Your task to perform on an android device: Go to accessibility settings Image 0: 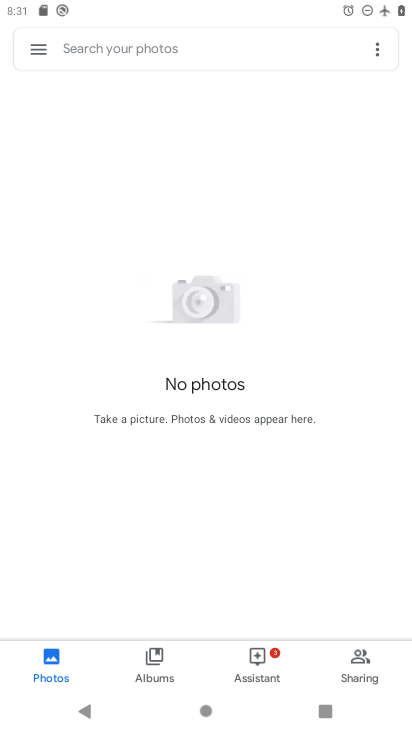
Step 0: press home button
Your task to perform on an android device: Go to accessibility settings Image 1: 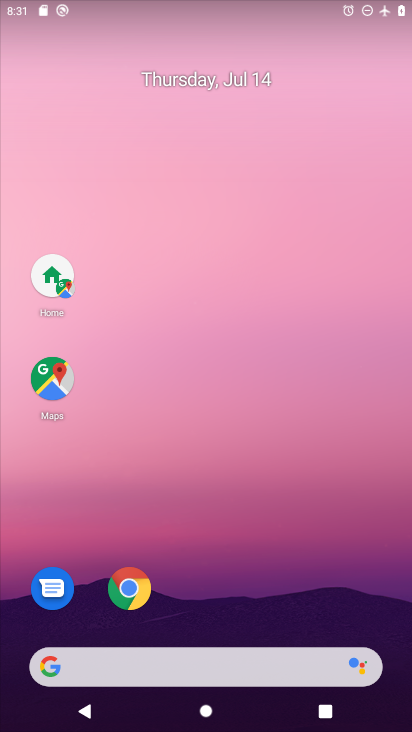
Step 1: drag from (18, 689) to (193, 94)
Your task to perform on an android device: Go to accessibility settings Image 2: 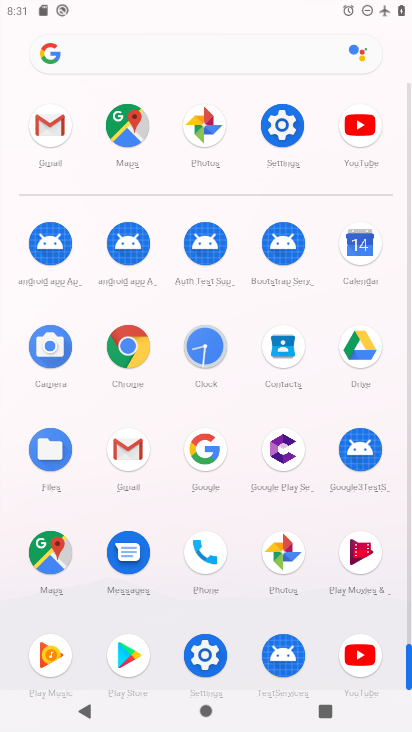
Step 2: click (199, 663)
Your task to perform on an android device: Go to accessibility settings Image 3: 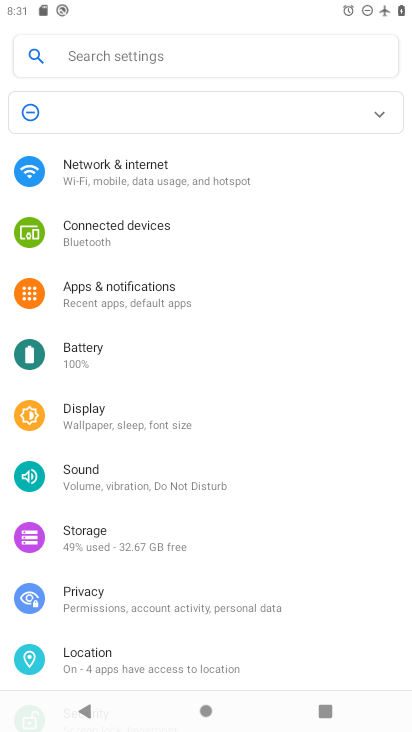
Step 3: drag from (210, 593) to (309, 79)
Your task to perform on an android device: Go to accessibility settings Image 4: 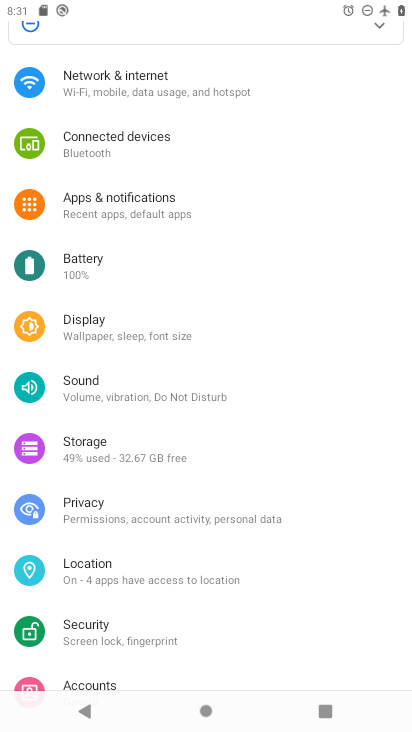
Step 4: drag from (182, 596) to (229, 88)
Your task to perform on an android device: Go to accessibility settings Image 5: 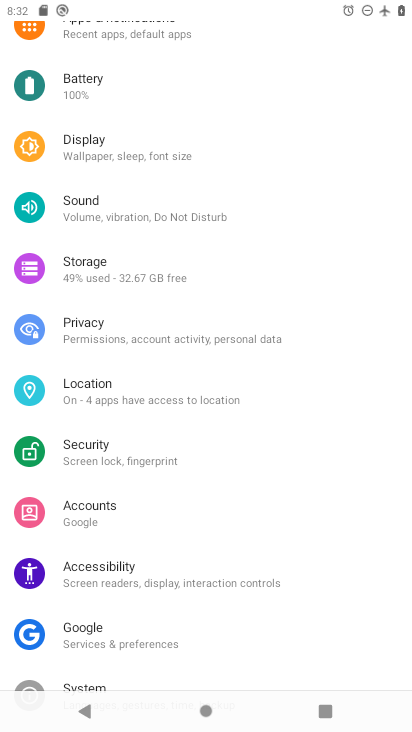
Step 5: click (134, 575)
Your task to perform on an android device: Go to accessibility settings Image 6: 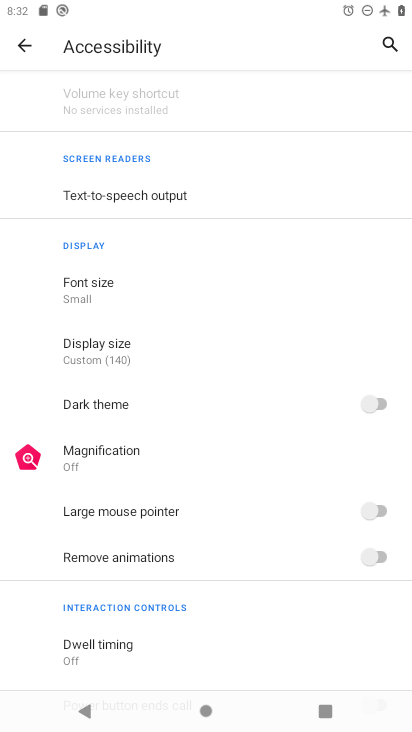
Step 6: task complete